Your task to perform on an android device: manage bookmarks in the chrome app Image 0: 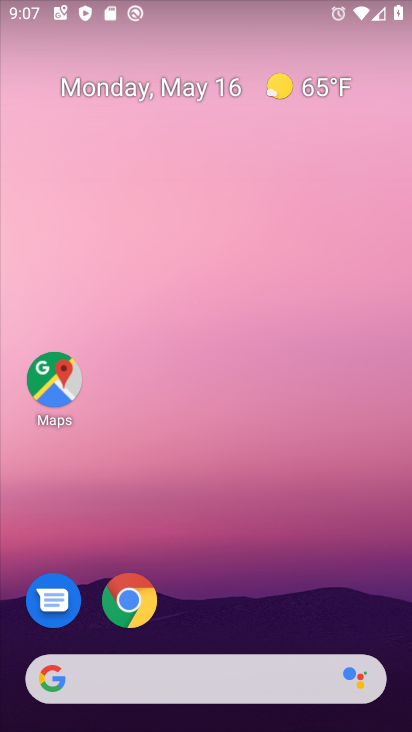
Step 0: drag from (131, 564) to (207, 115)
Your task to perform on an android device: manage bookmarks in the chrome app Image 1: 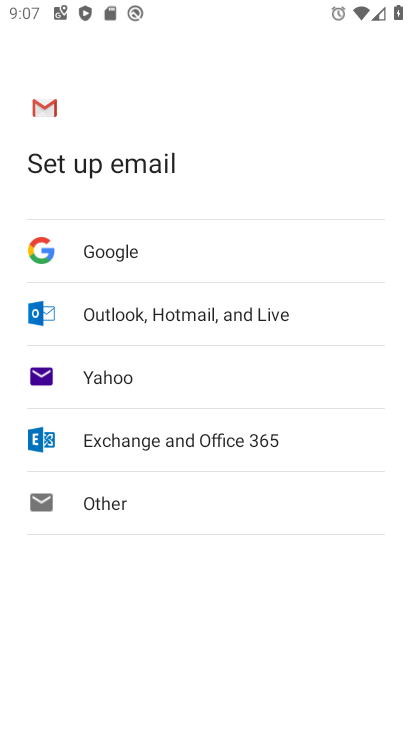
Step 1: press home button
Your task to perform on an android device: manage bookmarks in the chrome app Image 2: 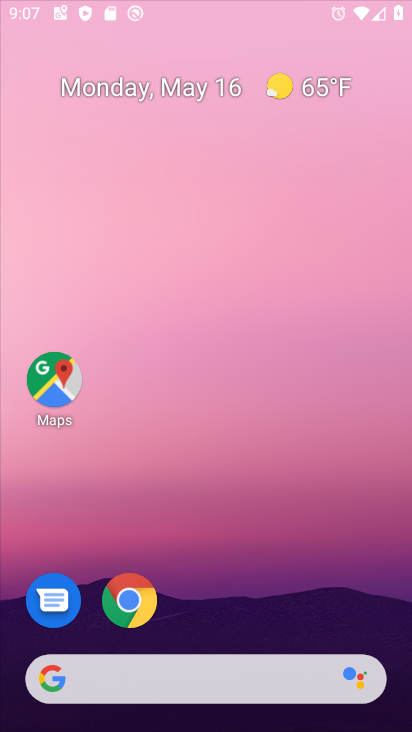
Step 2: drag from (195, 658) to (253, 211)
Your task to perform on an android device: manage bookmarks in the chrome app Image 3: 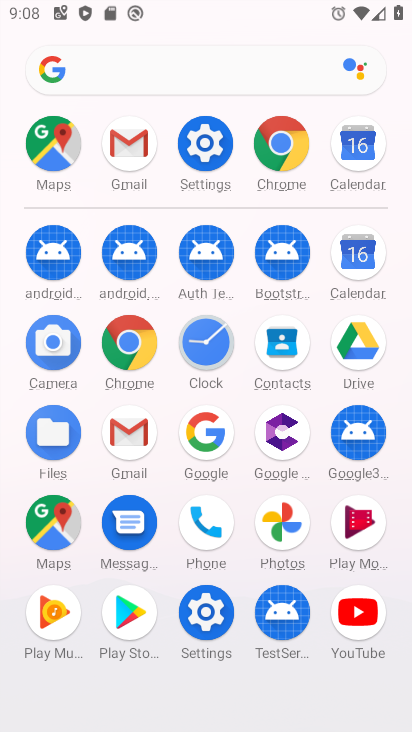
Step 3: click (132, 344)
Your task to perform on an android device: manage bookmarks in the chrome app Image 4: 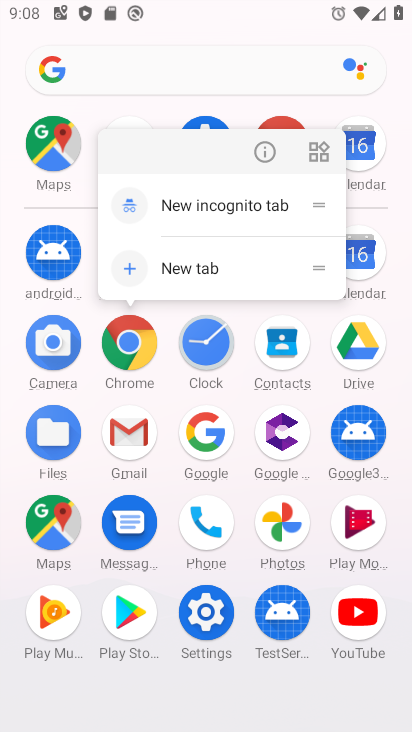
Step 4: click (266, 155)
Your task to perform on an android device: manage bookmarks in the chrome app Image 5: 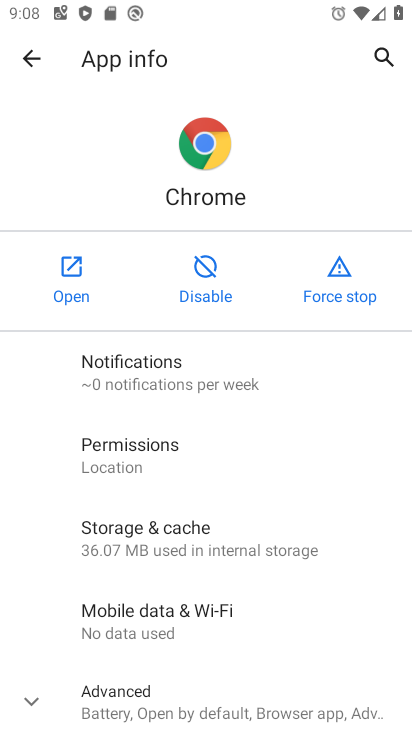
Step 5: click (40, 276)
Your task to perform on an android device: manage bookmarks in the chrome app Image 6: 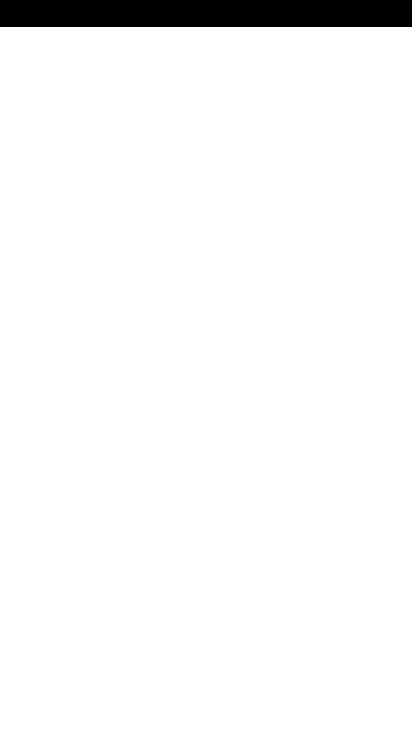
Step 6: click (48, 276)
Your task to perform on an android device: manage bookmarks in the chrome app Image 7: 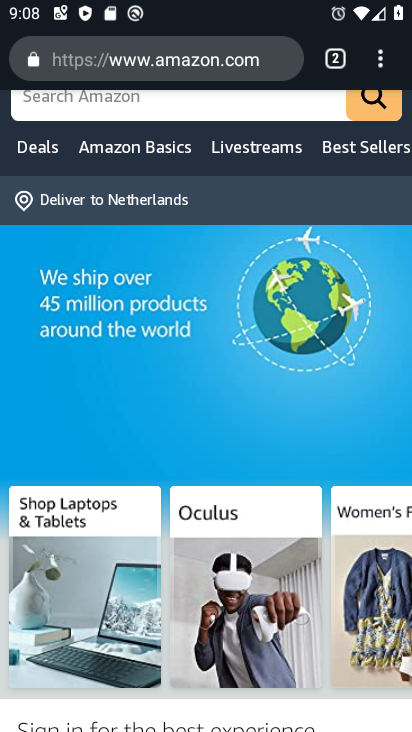
Step 7: drag from (264, 594) to (286, 297)
Your task to perform on an android device: manage bookmarks in the chrome app Image 8: 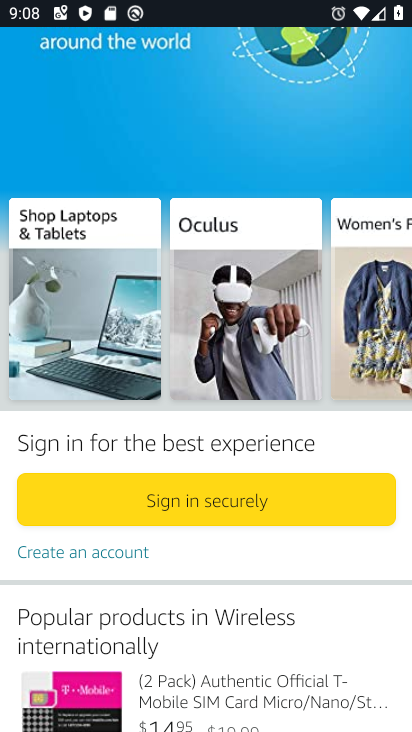
Step 8: drag from (306, 279) to (366, 626)
Your task to perform on an android device: manage bookmarks in the chrome app Image 9: 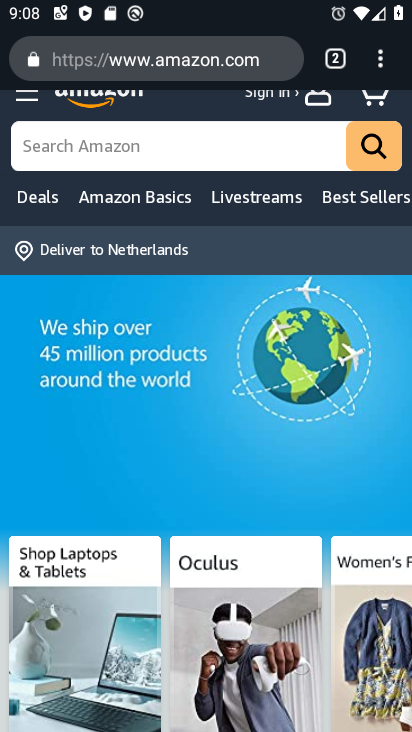
Step 9: click (380, 51)
Your task to perform on an android device: manage bookmarks in the chrome app Image 10: 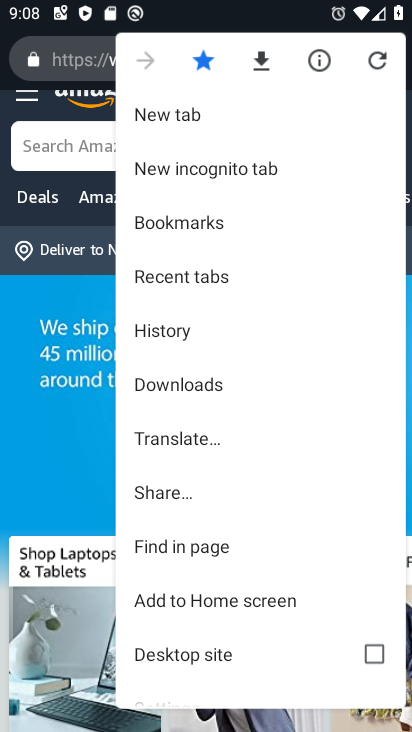
Step 10: drag from (260, 658) to (295, 131)
Your task to perform on an android device: manage bookmarks in the chrome app Image 11: 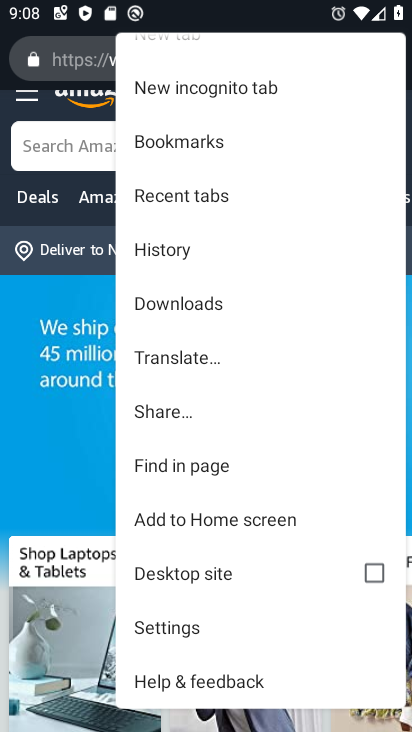
Step 11: click (226, 152)
Your task to perform on an android device: manage bookmarks in the chrome app Image 12: 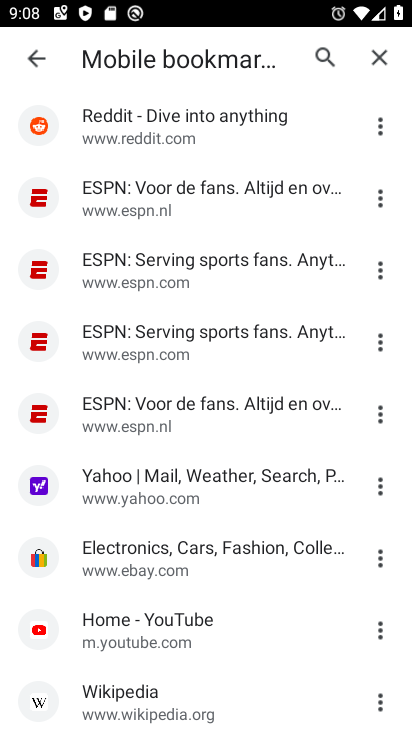
Step 12: click (382, 271)
Your task to perform on an android device: manage bookmarks in the chrome app Image 13: 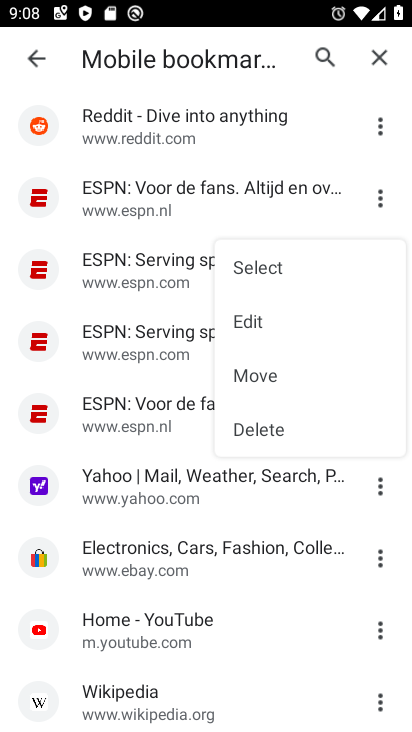
Step 13: click (267, 381)
Your task to perform on an android device: manage bookmarks in the chrome app Image 14: 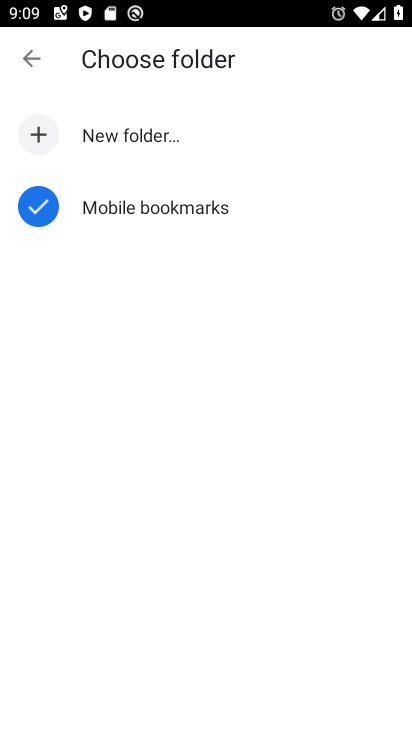
Step 14: click (109, 203)
Your task to perform on an android device: manage bookmarks in the chrome app Image 15: 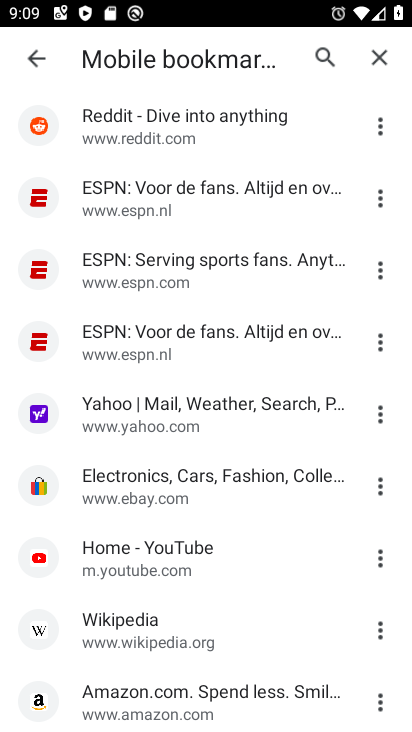
Step 15: task complete